Your task to perform on an android device: turn on the 12-hour format for clock Image 0: 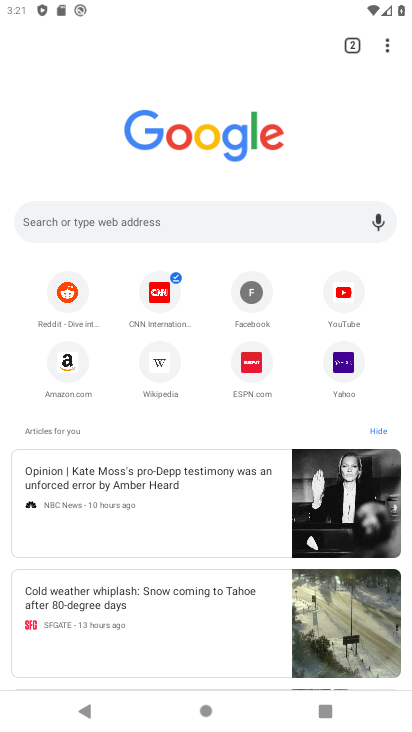
Step 0: press home button
Your task to perform on an android device: turn on the 12-hour format for clock Image 1: 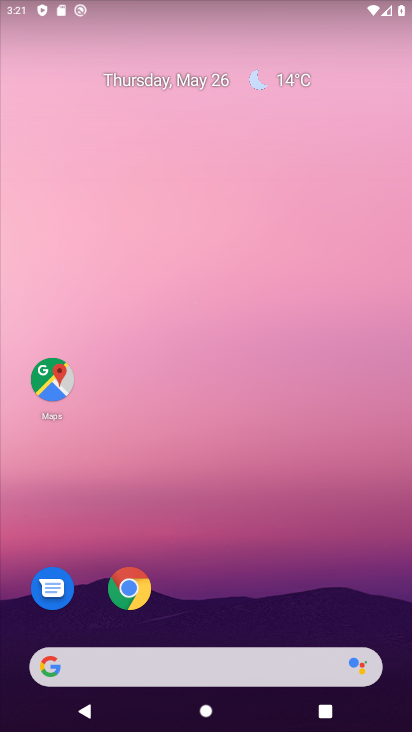
Step 1: drag from (287, 628) to (313, 203)
Your task to perform on an android device: turn on the 12-hour format for clock Image 2: 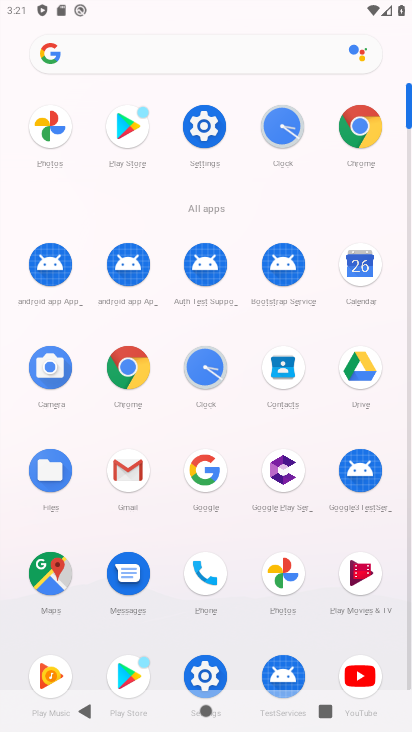
Step 2: click (289, 156)
Your task to perform on an android device: turn on the 12-hour format for clock Image 3: 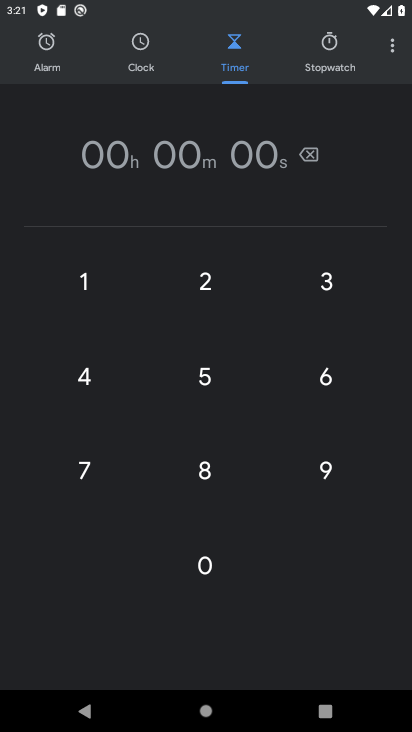
Step 3: click (393, 50)
Your task to perform on an android device: turn on the 12-hour format for clock Image 4: 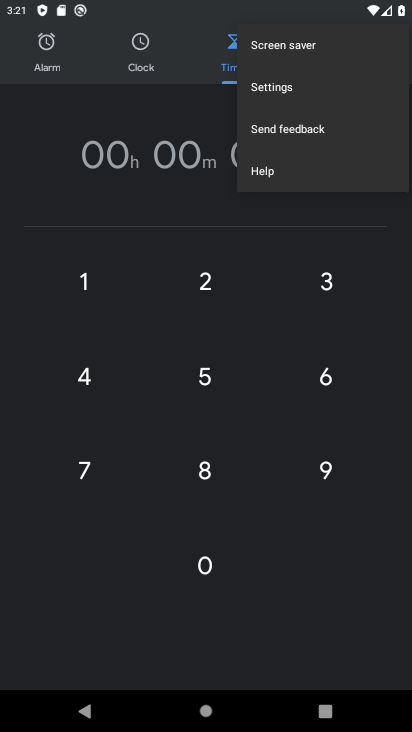
Step 4: click (293, 93)
Your task to perform on an android device: turn on the 12-hour format for clock Image 5: 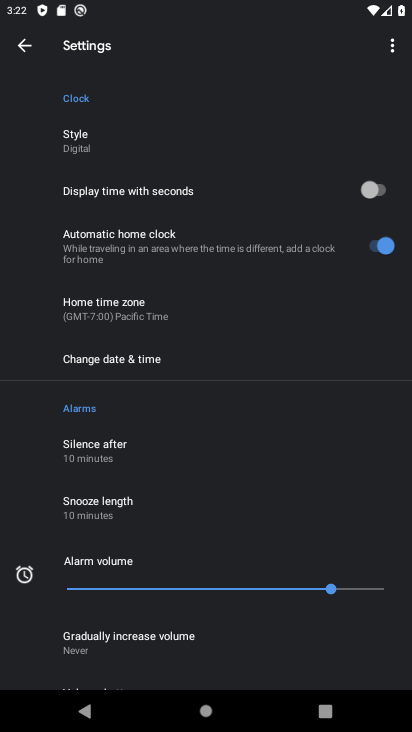
Step 5: click (123, 367)
Your task to perform on an android device: turn on the 12-hour format for clock Image 6: 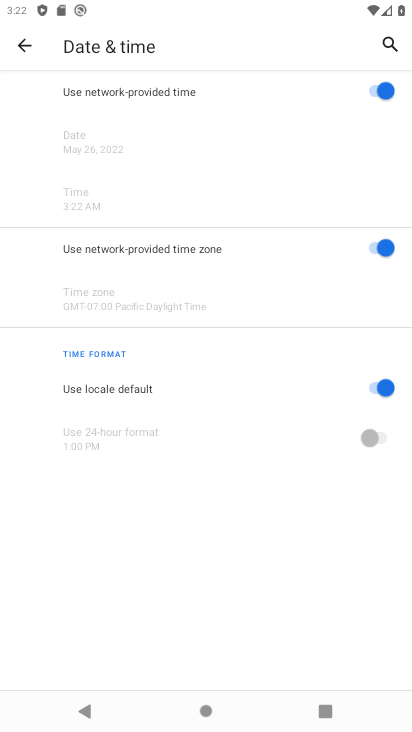
Step 6: click (378, 387)
Your task to perform on an android device: turn on the 12-hour format for clock Image 7: 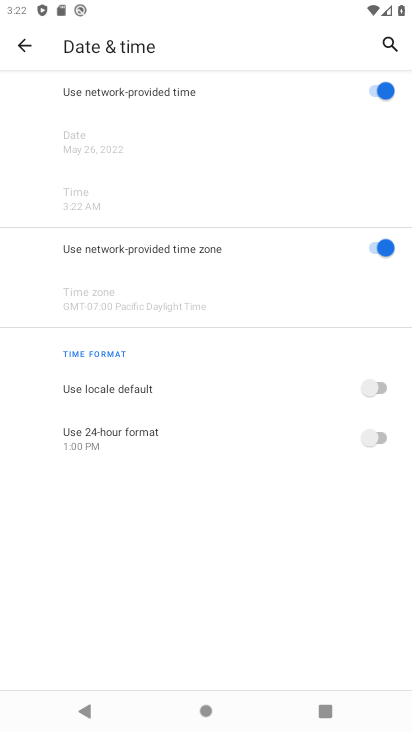
Step 7: task complete